Your task to perform on an android device: Open network settings Image 0: 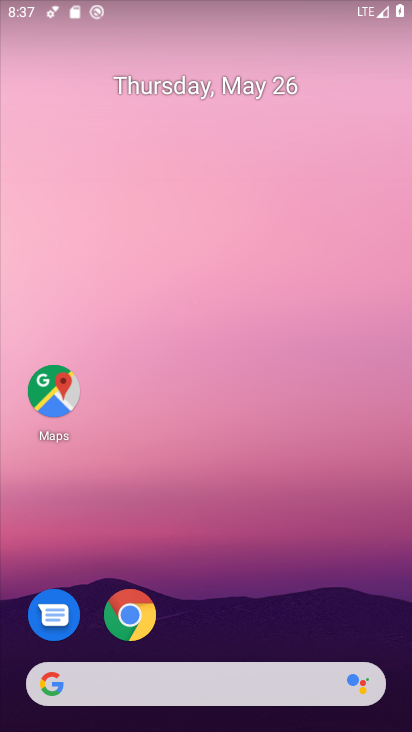
Step 0: drag from (212, 608) to (215, 300)
Your task to perform on an android device: Open network settings Image 1: 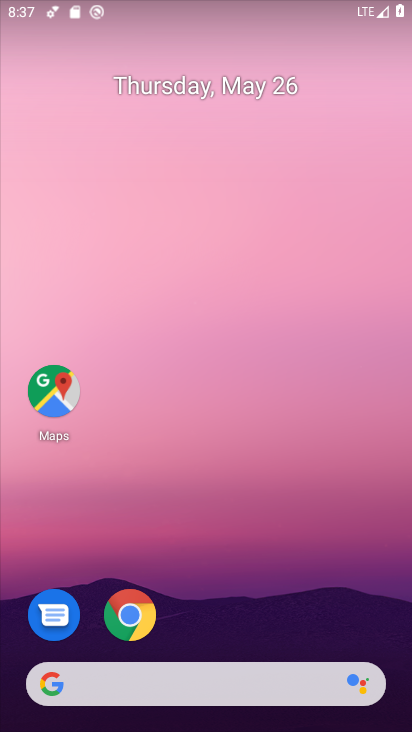
Step 1: drag from (143, 685) to (188, 260)
Your task to perform on an android device: Open network settings Image 2: 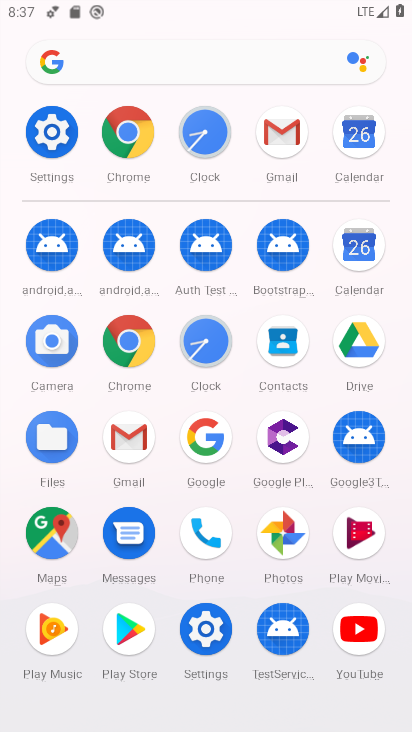
Step 2: click (58, 129)
Your task to perform on an android device: Open network settings Image 3: 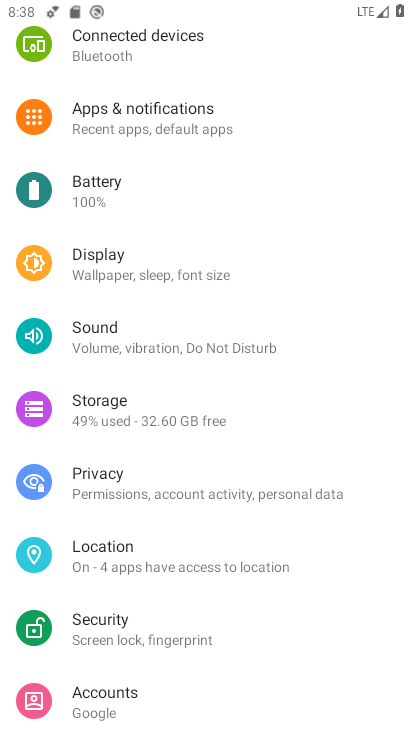
Step 3: drag from (204, 98) to (210, 520)
Your task to perform on an android device: Open network settings Image 4: 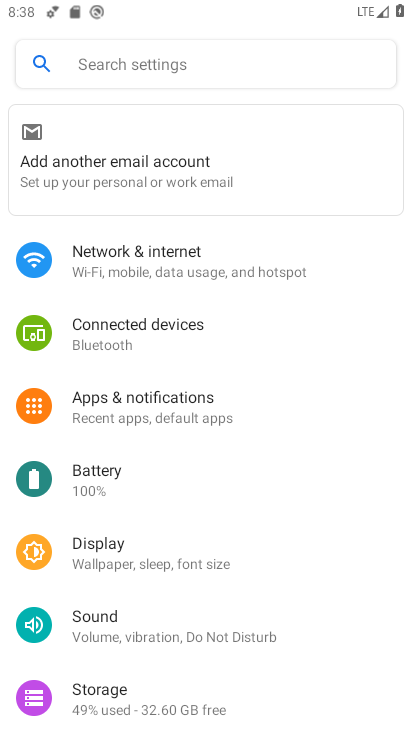
Step 4: click (197, 267)
Your task to perform on an android device: Open network settings Image 5: 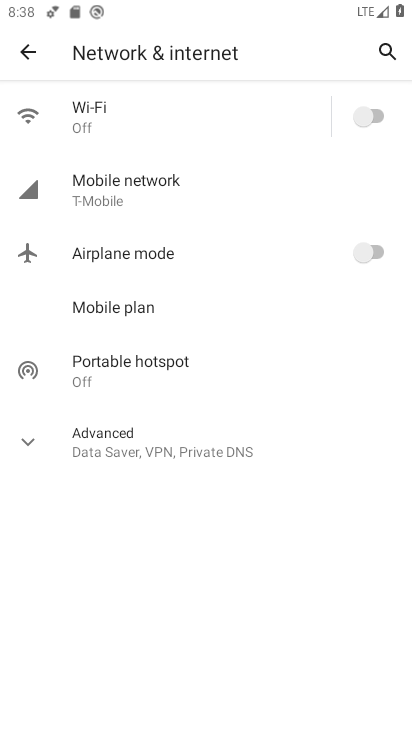
Step 5: task complete